Your task to perform on an android device: Open Android settings Image 0: 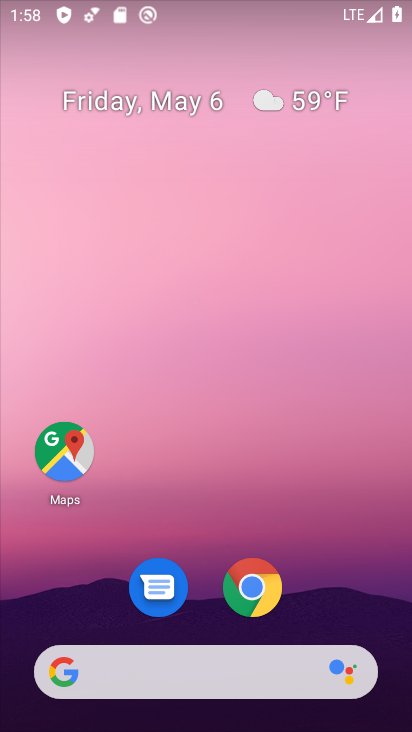
Step 0: drag from (304, 554) to (292, 138)
Your task to perform on an android device: Open Android settings Image 1: 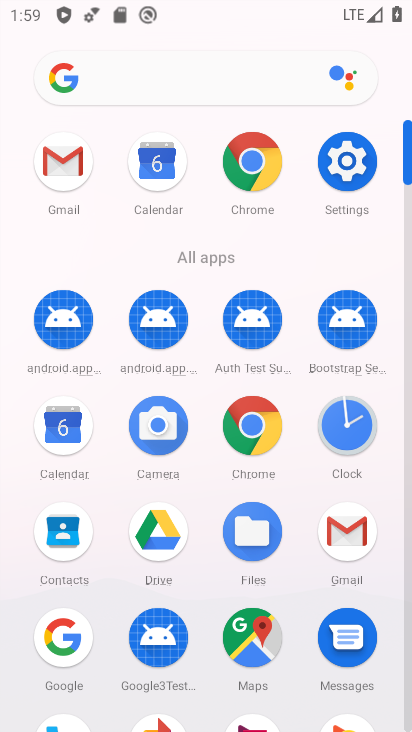
Step 1: click (353, 172)
Your task to perform on an android device: Open Android settings Image 2: 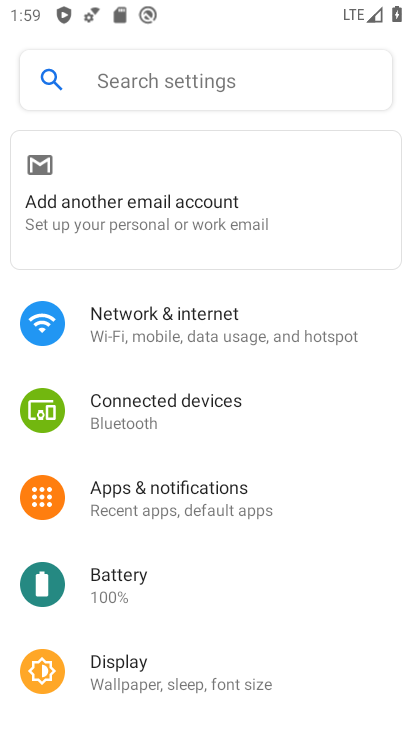
Step 2: task complete